Your task to perform on an android device: change notifications settings Image 0: 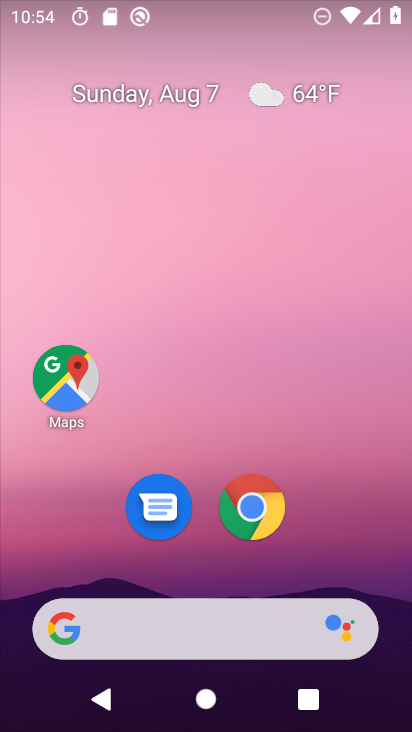
Step 0: drag from (310, 386) to (239, 9)
Your task to perform on an android device: change notifications settings Image 1: 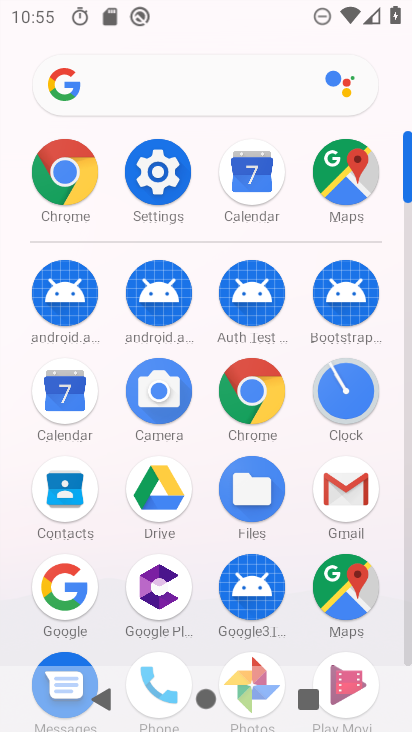
Step 1: drag from (201, 466) to (226, 167)
Your task to perform on an android device: change notifications settings Image 2: 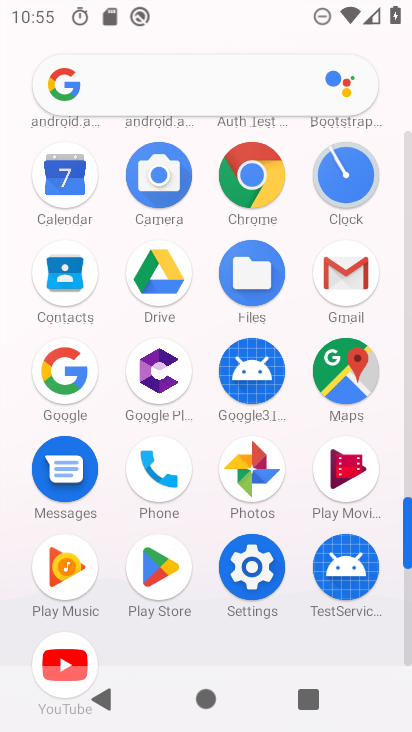
Step 2: click (243, 549)
Your task to perform on an android device: change notifications settings Image 3: 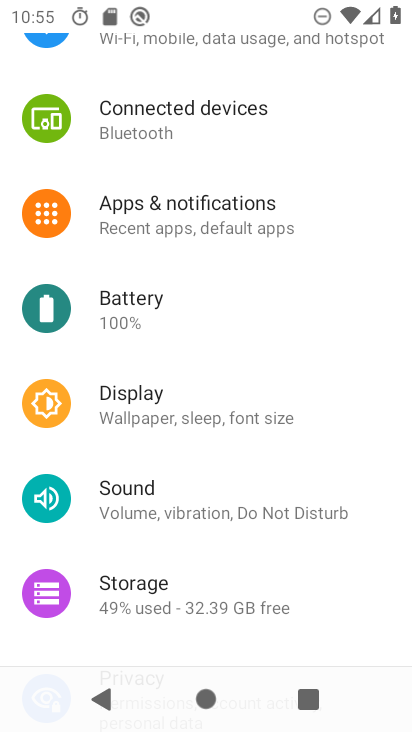
Step 3: click (230, 214)
Your task to perform on an android device: change notifications settings Image 4: 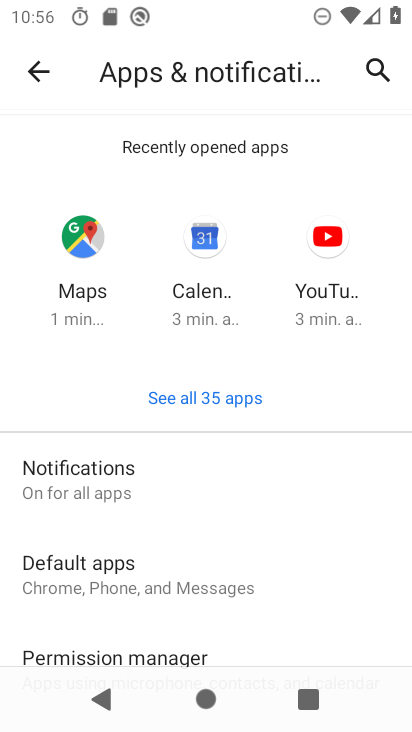
Step 4: click (95, 491)
Your task to perform on an android device: change notifications settings Image 5: 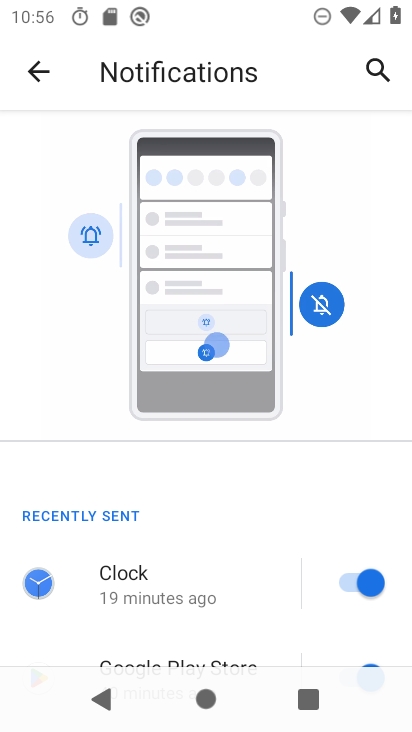
Step 5: task complete